Your task to perform on an android device: How much does a 3 bedroom apartment rent for in Atlanta? Image 0: 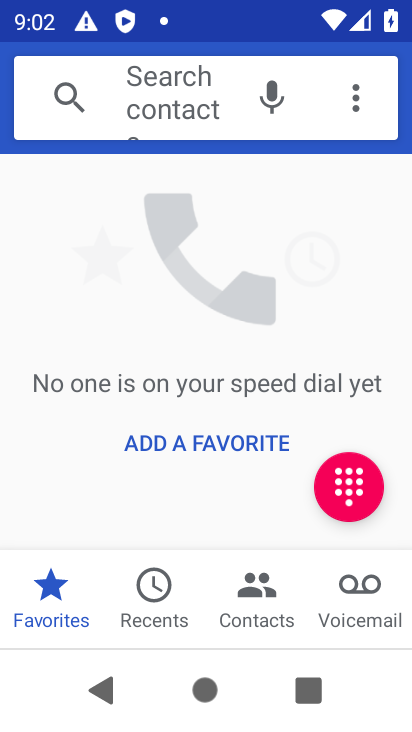
Step 0: press home button
Your task to perform on an android device: How much does a 3 bedroom apartment rent for in Atlanta? Image 1: 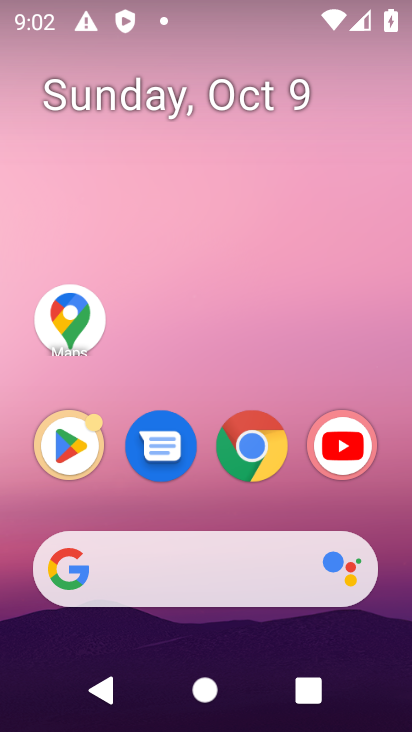
Step 1: click (249, 464)
Your task to perform on an android device: How much does a 3 bedroom apartment rent for in Atlanta? Image 2: 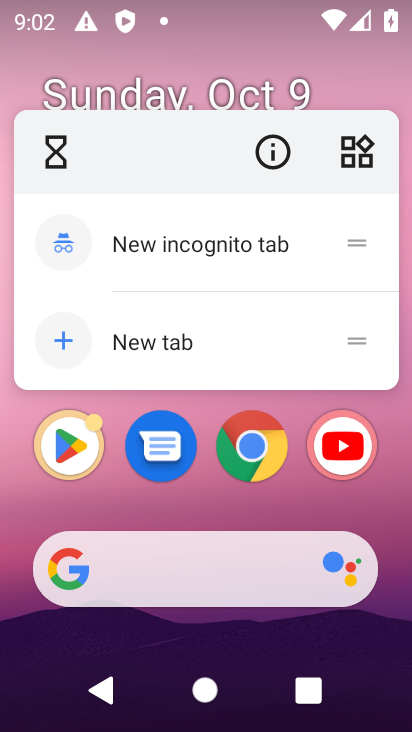
Step 2: click (255, 447)
Your task to perform on an android device: How much does a 3 bedroom apartment rent for in Atlanta? Image 3: 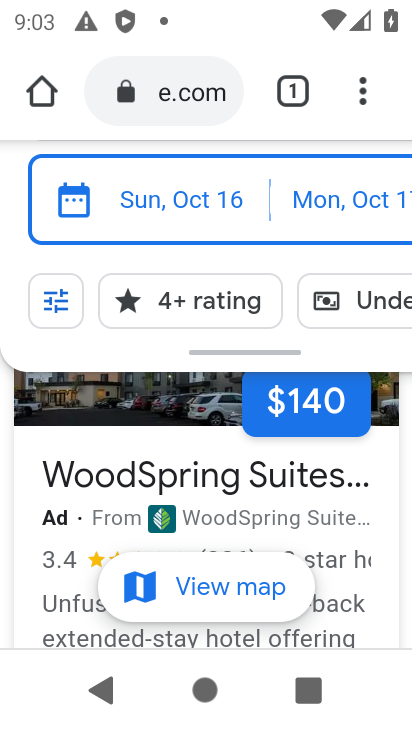
Step 3: click (184, 95)
Your task to perform on an android device: How much does a 3 bedroom apartment rent for in Atlanta? Image 4: 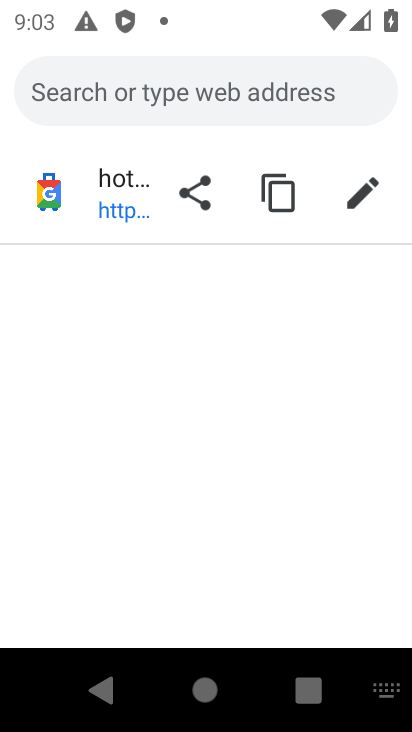
Step 4: type "3 bedroom apartment rent for in Atlanta"
Your task to perform on an android device: How much does a 3 bedroom apartment rent for in Atlanta? Image 5: 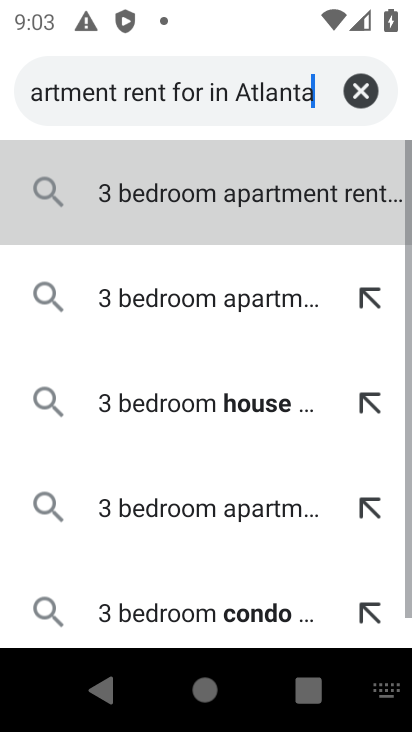
Step 5: type ""
Your task to perform on an android device: How much does a 3 bedroom apartment rent for in Atlanta? Image 6: 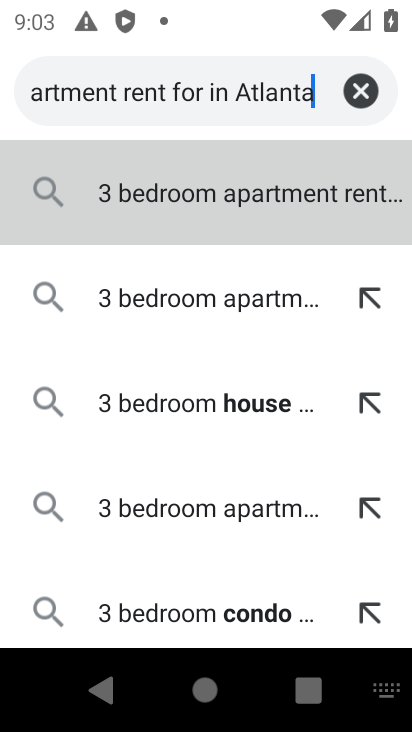
Step 6: press enter
Your task to perform on an android device: How much does a 3 bedroom apartment rent for in Atlanta? Image 7: 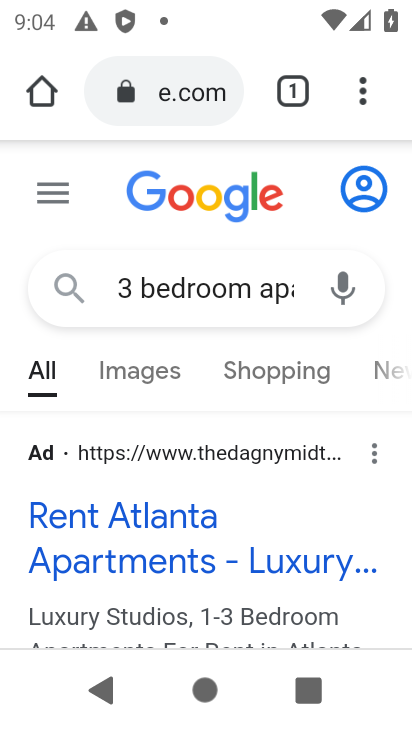
Step 7: drag from (279, 494) to (257, 145)
Your task to perform on an android device: How much does a 3 bedroom apartment rent for in Atlanta? Image 8: 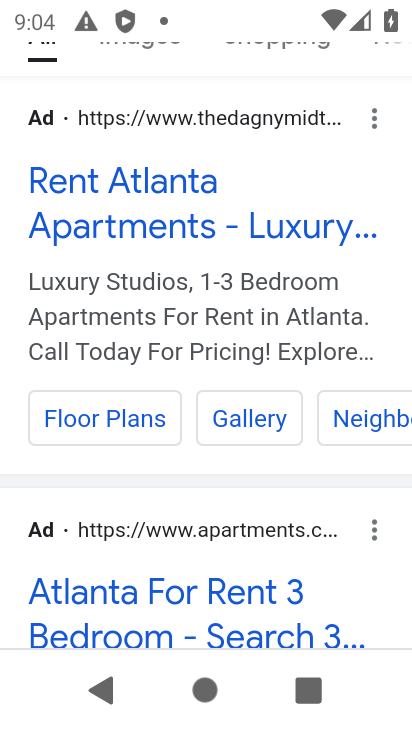
Step 8: click (236, 595)
Your task to perform on an android device: How much does a 3 bedroom apartment rent for in Atlanta? Image 9: 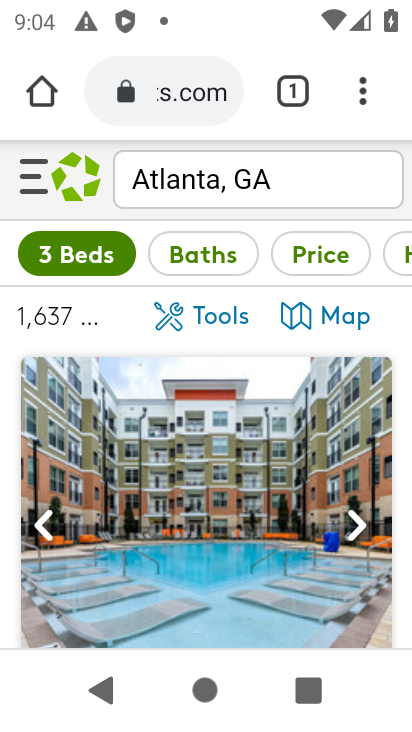
Step 9: task complete